Your task to perform on an android device: toggle improve location accuracy Image 0: 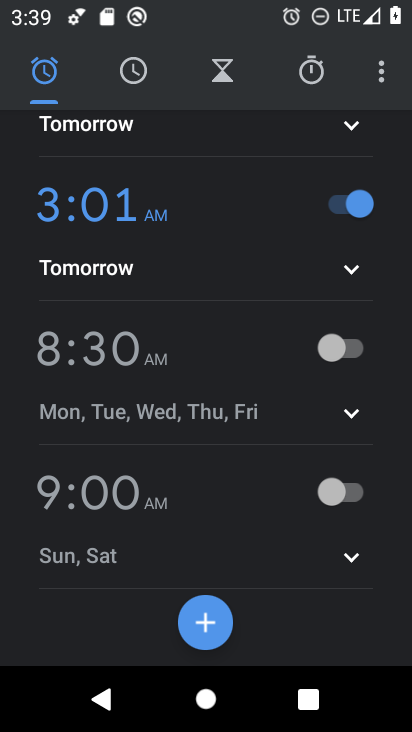
Step 0: press home button
Your task to perform on an android device: toggle improve location accuracy Image 1: 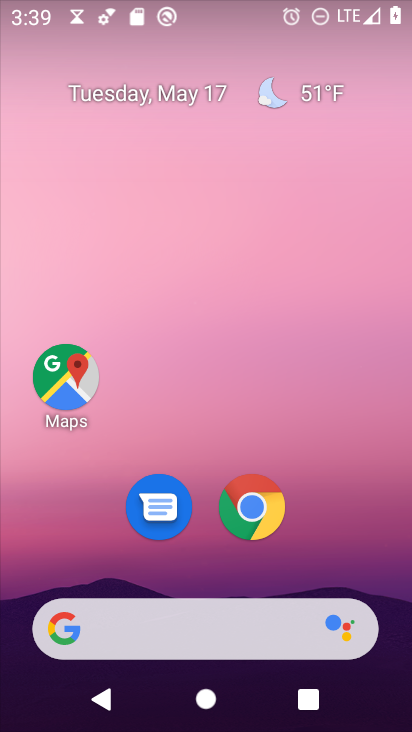
Step 1: drag from (322, 557) to (349, 71)
Your task to perform on an android device: toggle improve location accuracy Image 2: 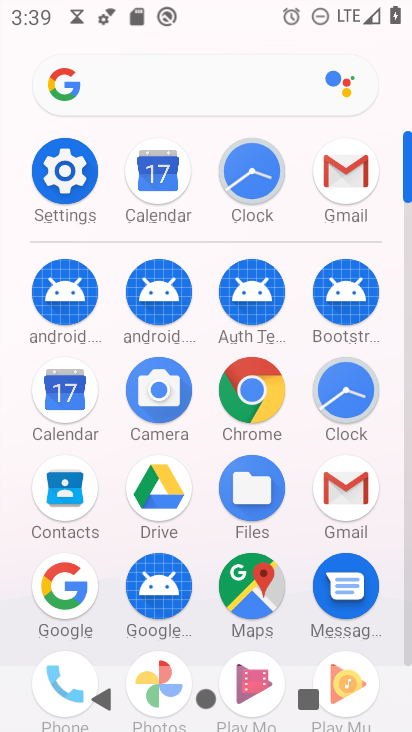
Step 2: click (56, 186)
Your task to perform on an android device: toggle improve location accuracy Image 3: 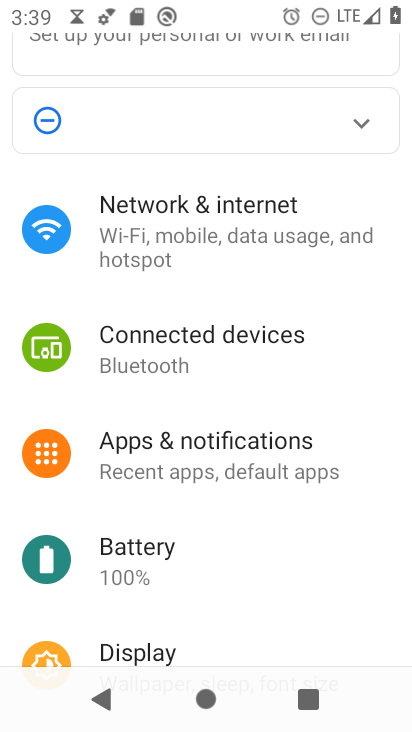
Step 3: drag from (162, 566) to (209, 288)
Your task to perform on an android device: toggle improve location accuracy Image 4: 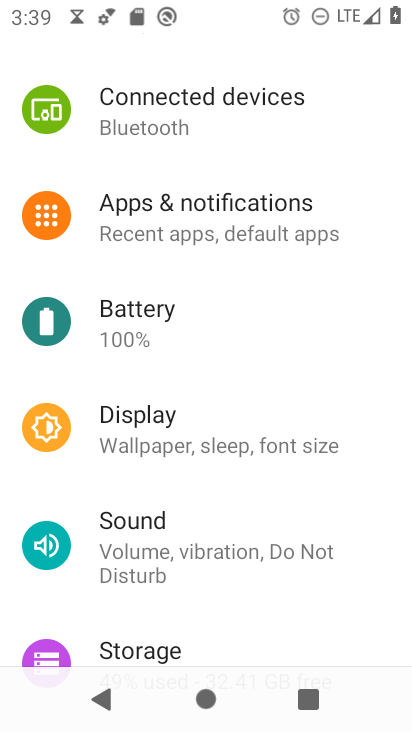
Step 4: drag from (200, 585) to (226, 243)
Your task to perform on an android device: toggle improve location accuracy Image 5: 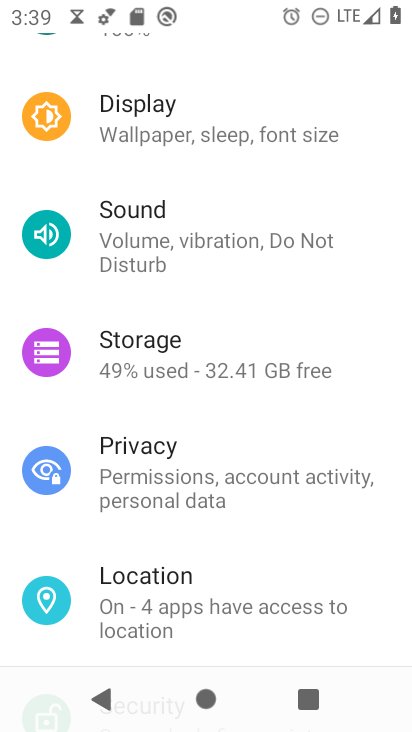
Step 5: click (259, 593)
Your task to perform on an android device: toggle improve location accuracy Image 6: 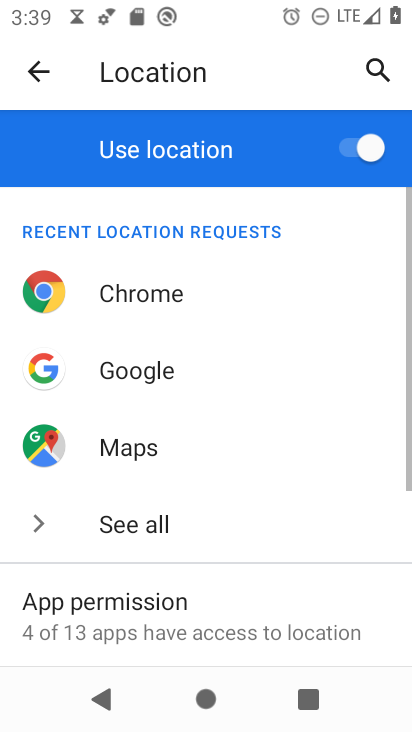
Step 6: drag from (212, 630) to (169, 283)
Your task to perform on an android device: toggle improve location accuracy Image 7: 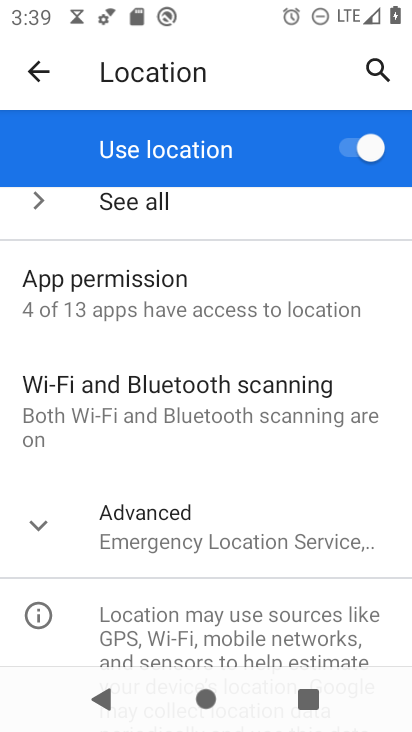
Step 7: click (197, 540)
Your task to perform on an android device: toggle improve location accuracy Image 8: 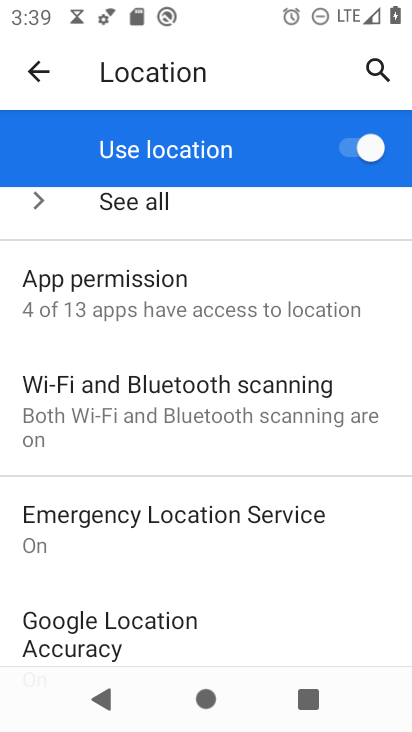
Step 8: drag from (177, 627) to (149, 377)
Your task to perform on an android device: toggle improve location accuracy Image 9: 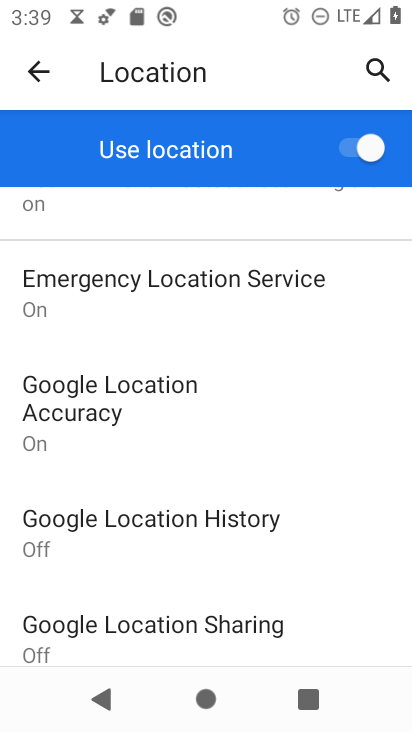
Step 9: click (124, 397)
Your task to perform on an android device: toggle improve location accuracy Image 10: 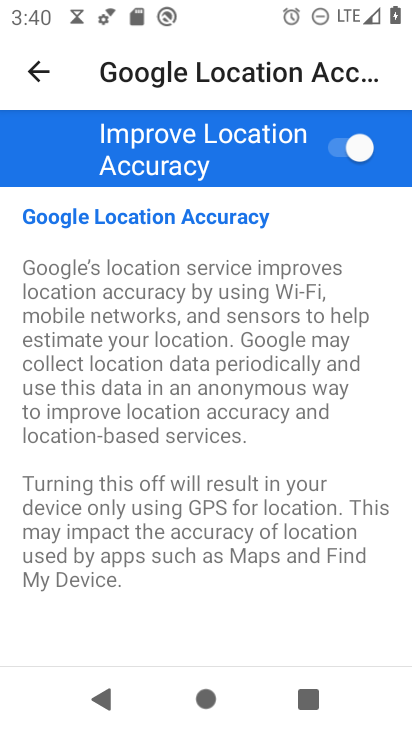
Step 10: click (334, 150)
Your task to perform on an android device: toggle improve location accuracy Image 11: 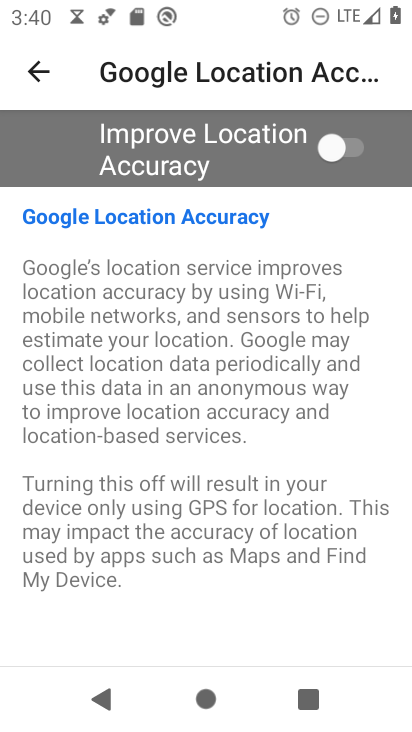
Step 11: task complete